Your task to perform on an android device: install app "Cash App" Image 0: 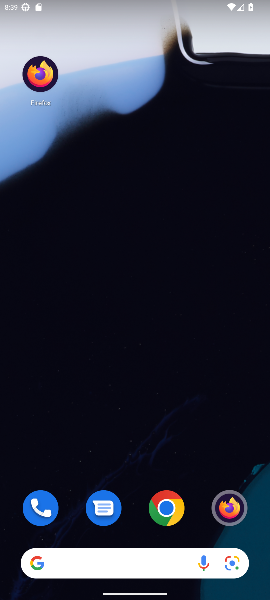
Step 0: drag from (72, 573) to (164, 77)
Your task to perform on an android device: install app "Cash App" Image 1: 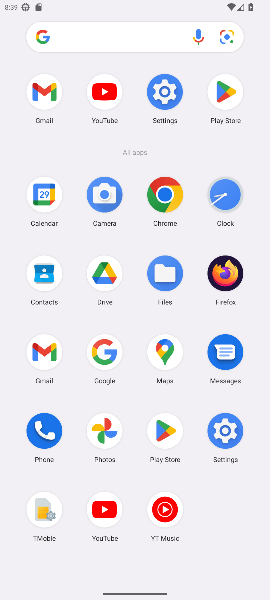
Step 1: click (223, 97)
Your task to perform on an android device: install app "Cash App" Image 2: 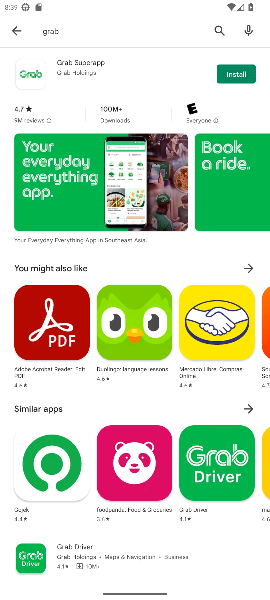
Step 2: click (219, 28)
Your task to perform on an android device: install app "Cash App" Image 3: 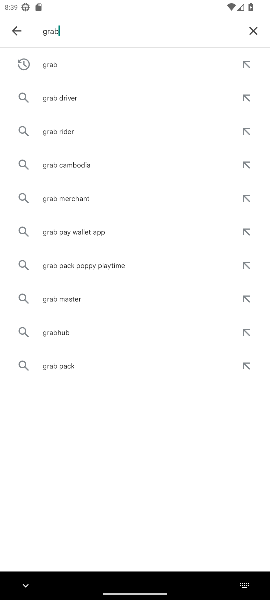
Step 3: click (251, 32)
Your task to perform on an android device: install app "Cash App" Image 4: 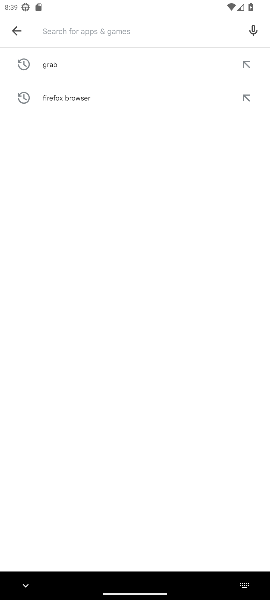
Step 4: type "cashapp"
Your task to perform on an android device: install app "Cash App" Image 5: 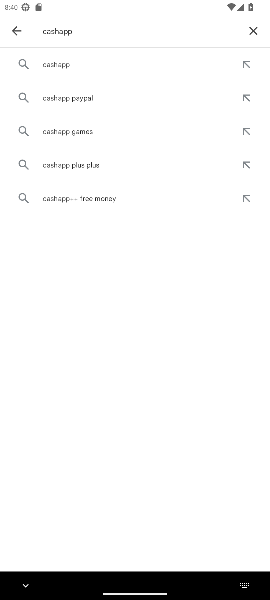
Step 5: click (73, 71)
Your task to perform on an android device: install app "Cash App" Image 6: 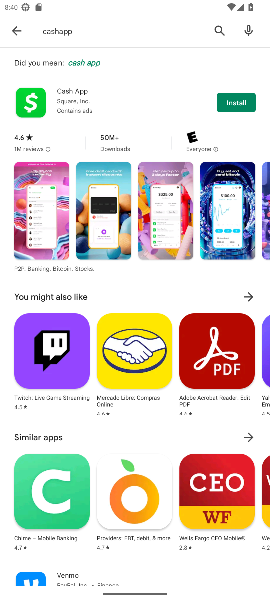
Step 6: click (238, 104)
Your task to perform on an android device: install app "Cash App" Image 7: 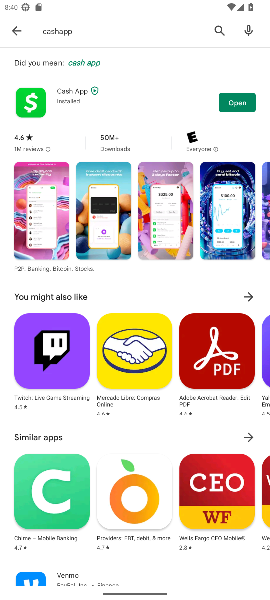
Step 7: task complete